Your task to perform on an android device: Search for a new eyeshadow on Sephora Image 0: 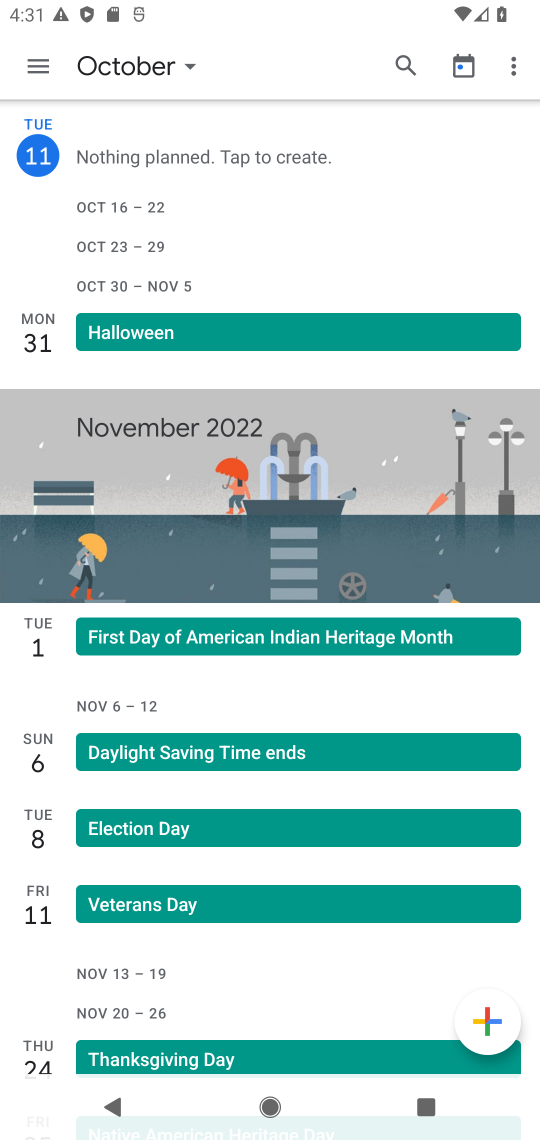
Step 0: press home button
Your task to perform on an android device: Search for a new eyeshadow on Sephora Image 1: 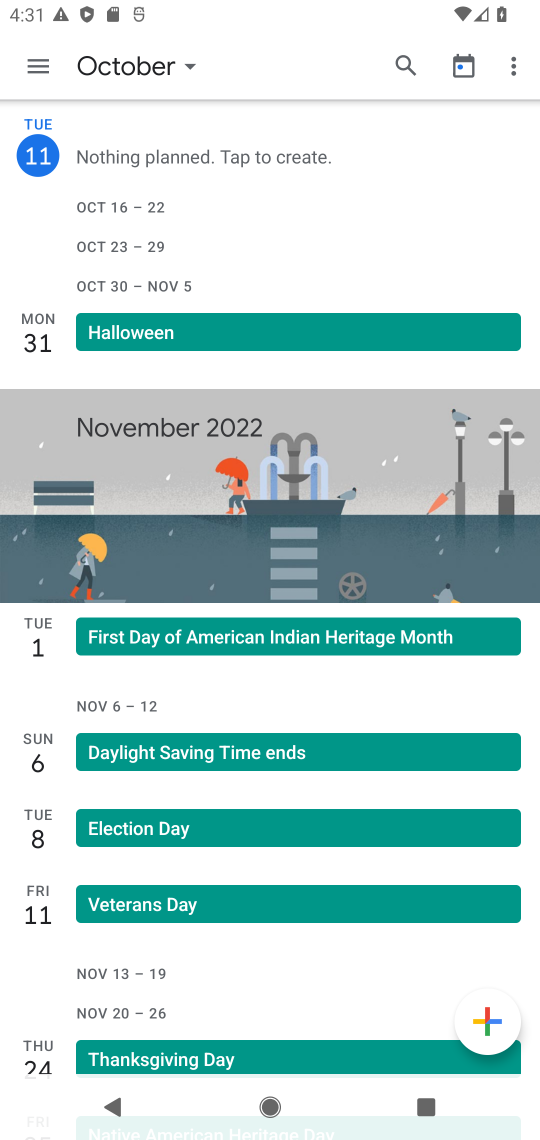
Step 1: press home button
Your task to perform on an android device: Search for a new eyeshadow on Sephora Image 2: 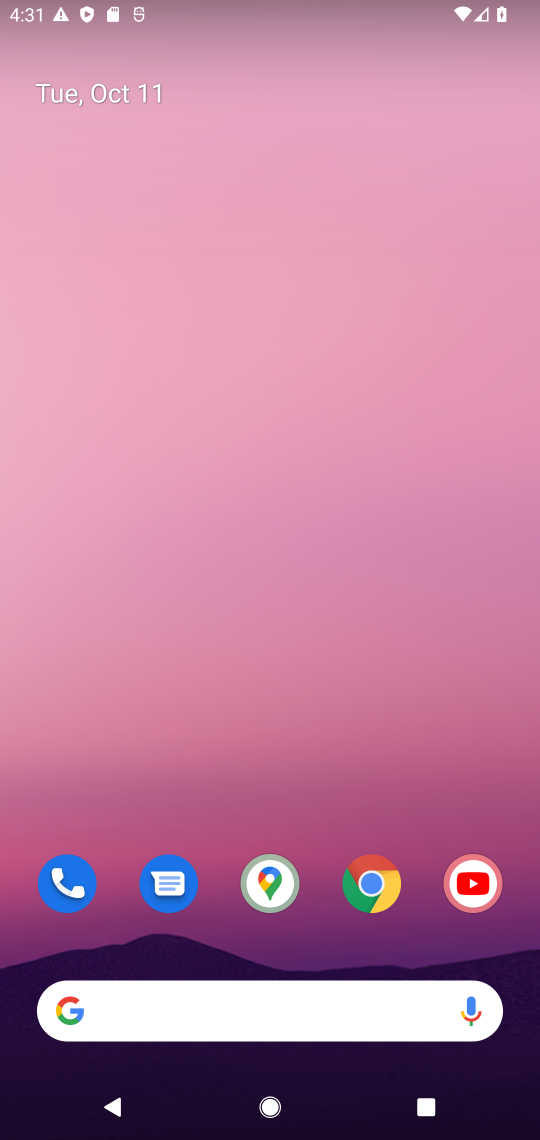
Step 2: drag from (311, 942) to (314, 609)
Your task to perform on an android device: Search for a new eyeshadow on Sephora Image 3: 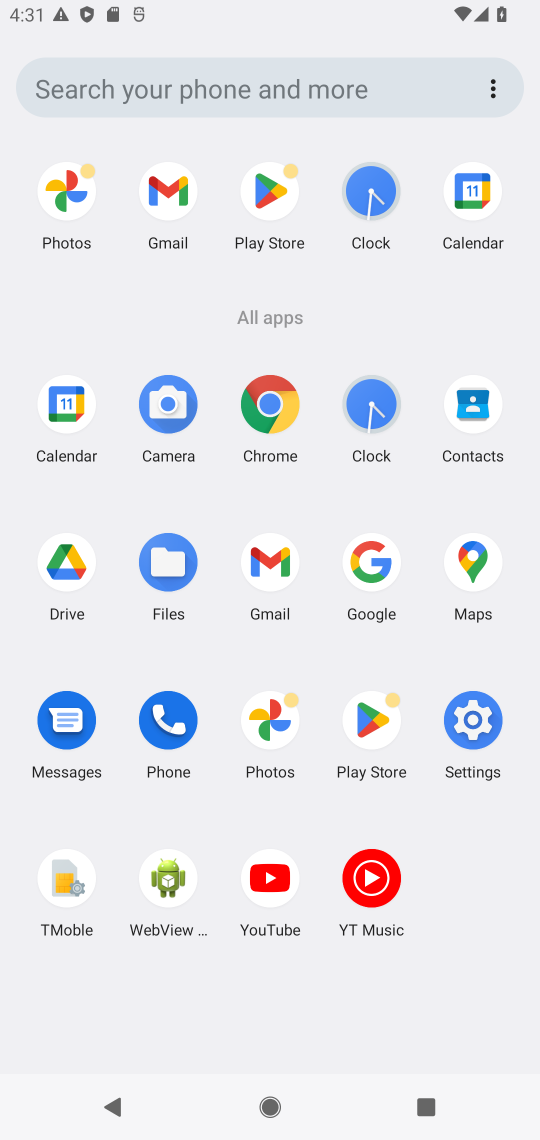
Step 3: click (268, 406)
Your task to perform on an android device: Search for a new eyeshadow on Sephora Image 4: 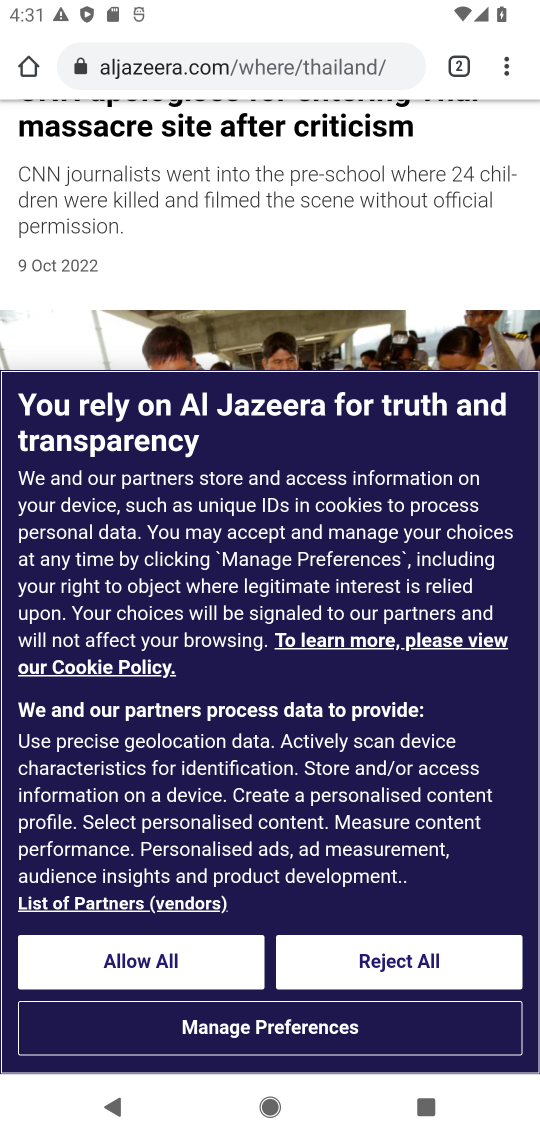
Step 4: click (304, 72)
Your task to perform on an android device: Search for a new eyeshadow on Sephora Image 5: 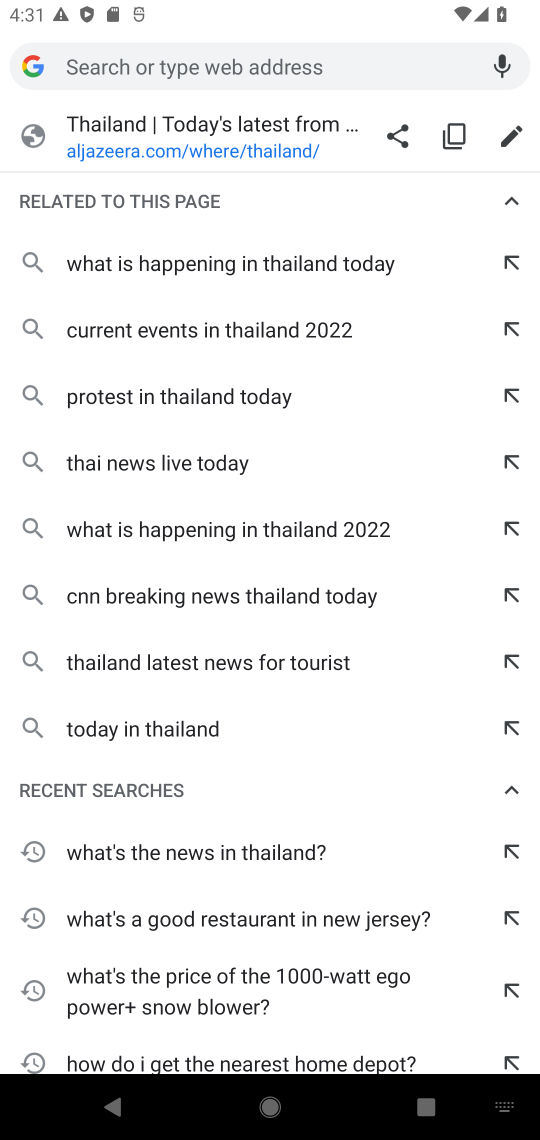
Step 5: type "a new eyeshadow on Sephora"
Your task to perform on an android device: Search for a new eyeshadow on Sephora Image 6: 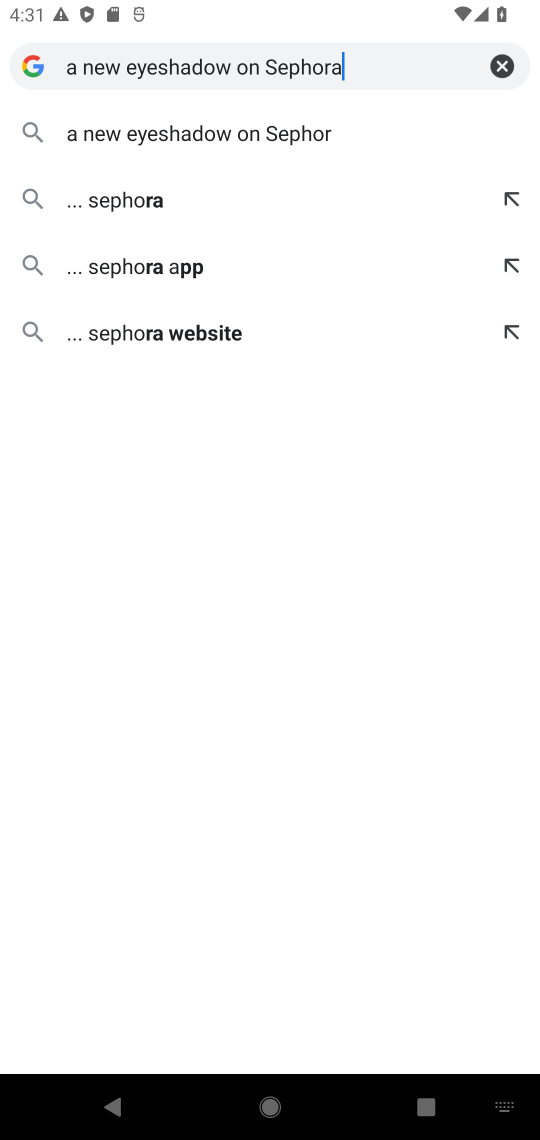
Step 6: press enter
Your task to perform on an android device: Search for a new eyeshadow on Sephora Image 7: 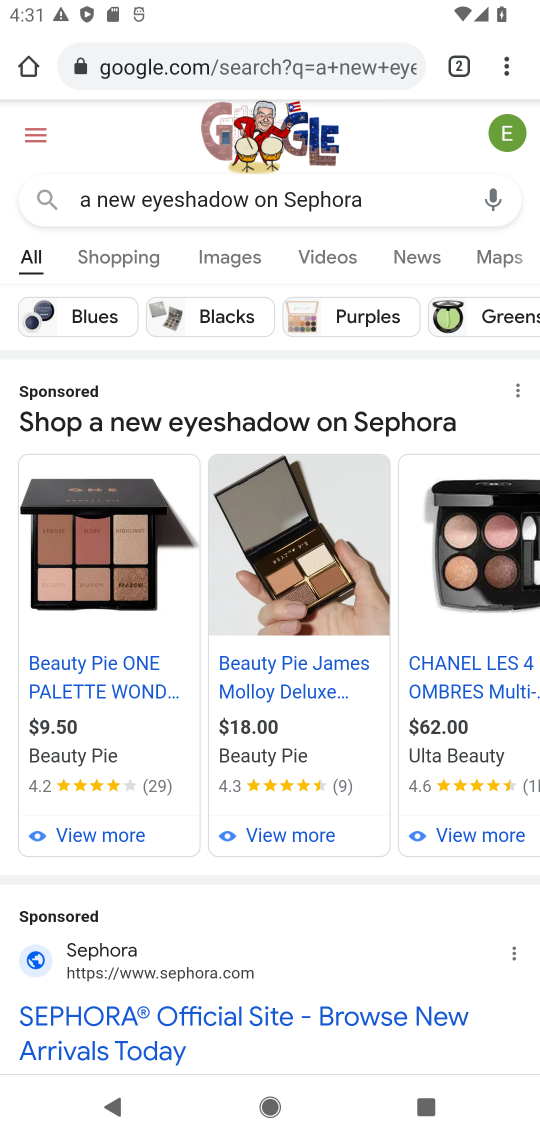
Step 7: drag from (358, 926) to (361, 249)
Your task to perform on an android device: Search for a new eyeshadow on Sephora Image 8: 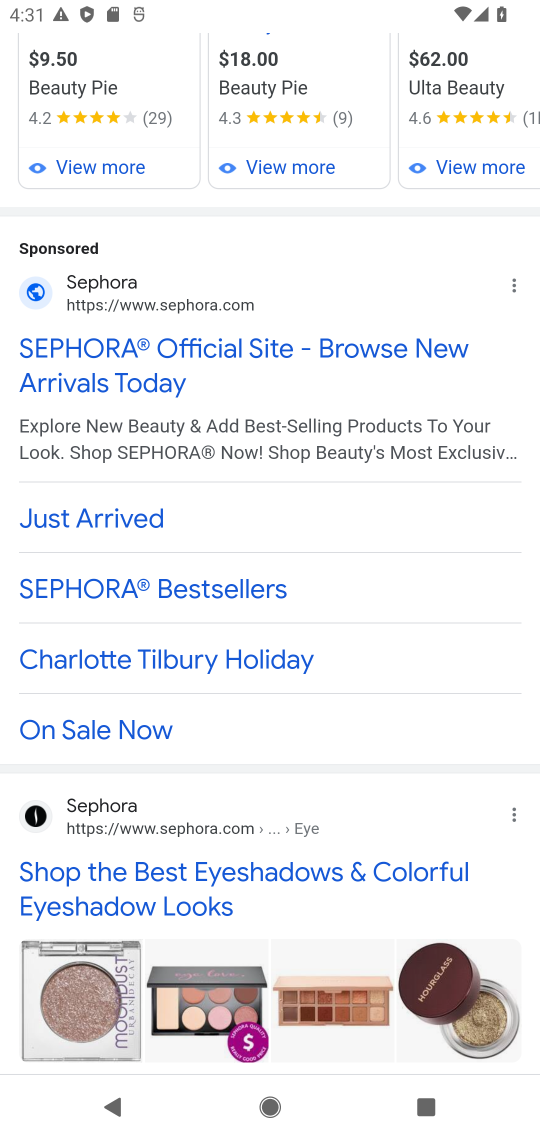
Step 8: click (267, 344)
Your task to perform on an android device: Search for a new eyeshadow on Sephora Image 9: 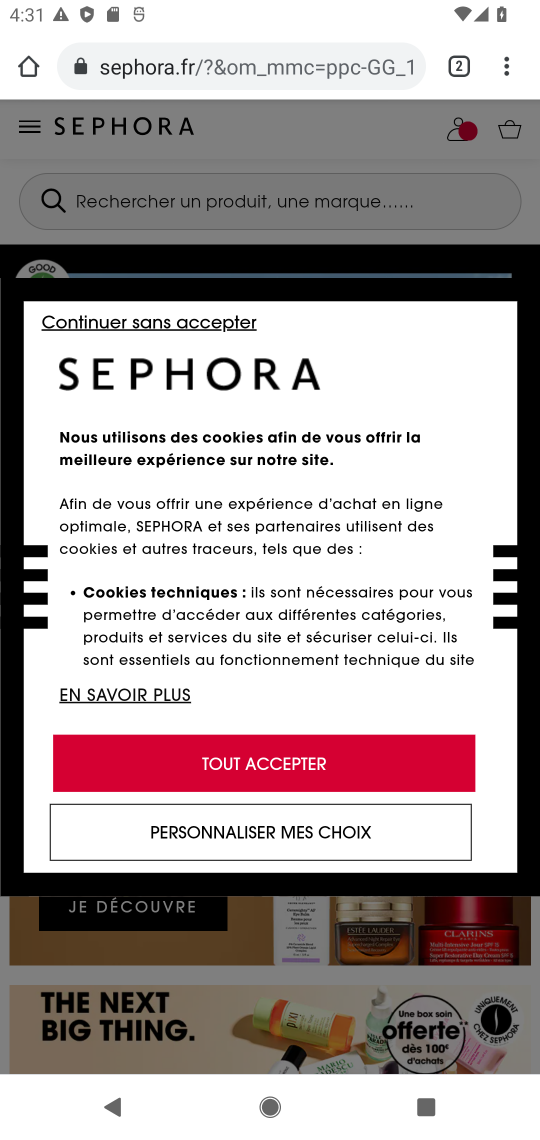
Step 9: drag from (355, 824) to (438, 252)
Your task to perform on an android device: Search for a new eyeshadow on Sephora Image 10: 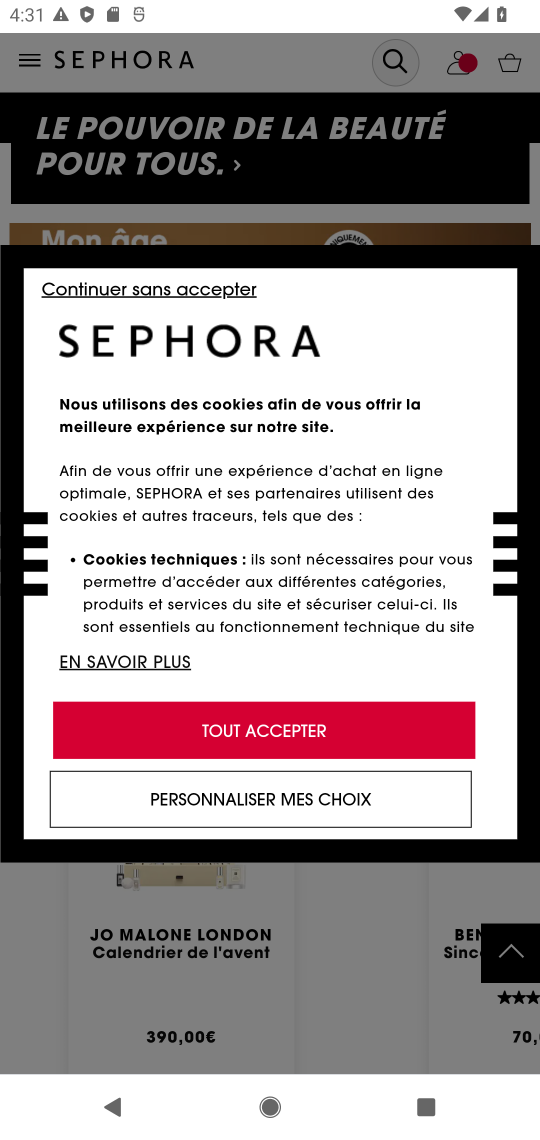
Step 10: click (372, 708)
Your task to perform on an android device: Search for a new eyeshadow on Sephora Image 11: 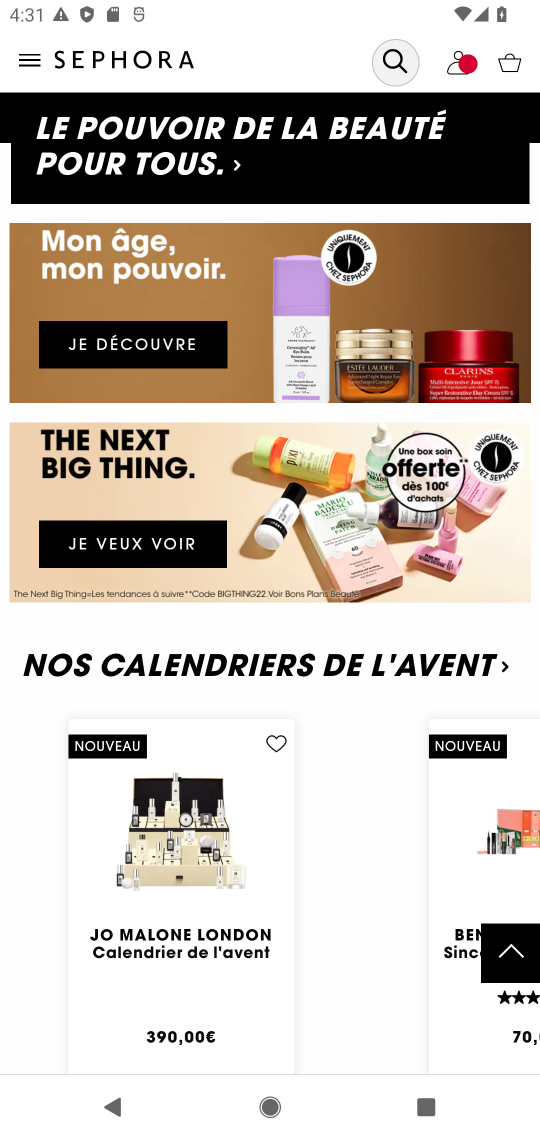
Step 11: drag from (281, 801) to (328, 214)
Your task to perform on an android device: Search for a new eyeshadow on Sephora Image 12: 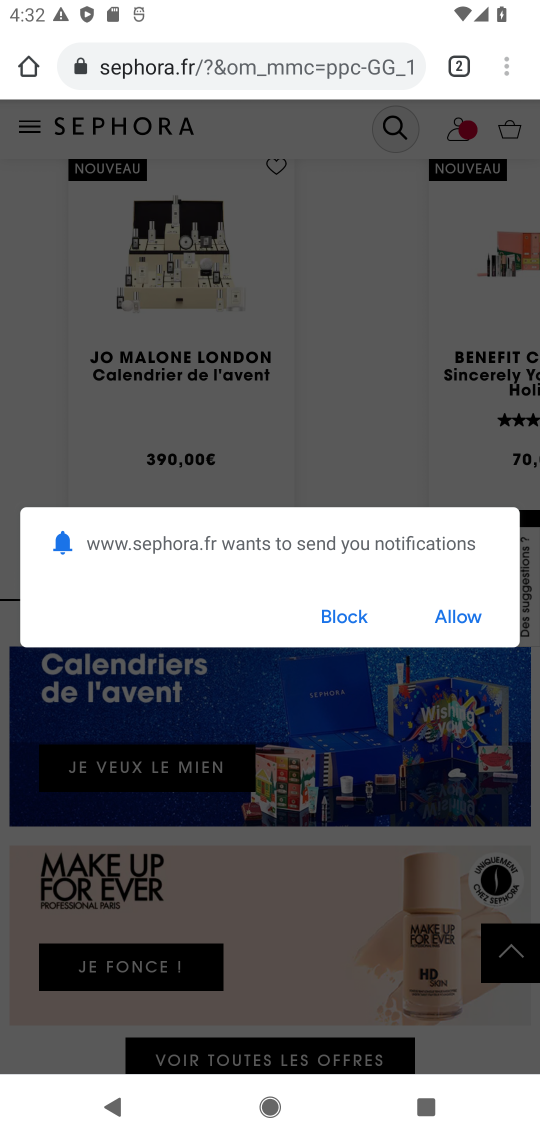
Step 12: click (338, 622)
Your task to perform on an android device: Search for a new eyeshadow on Sephora Image 13: 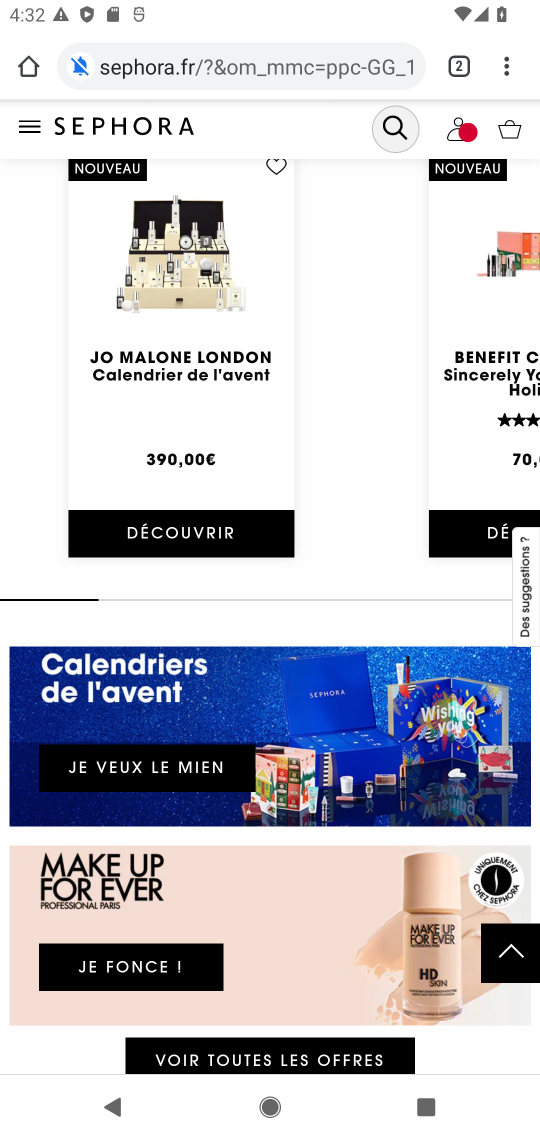
Step 13: task complete